Your task to perform on an android device: Go to Android settings Image 0: 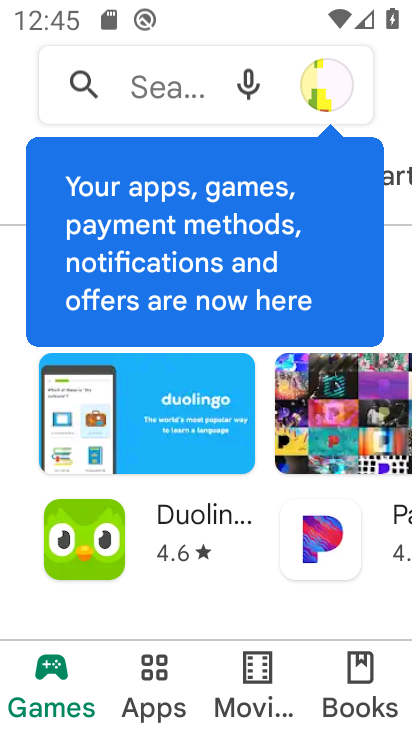
Step 0: press home button
Your task to perform on an android device: Go to Android settings Image 1: 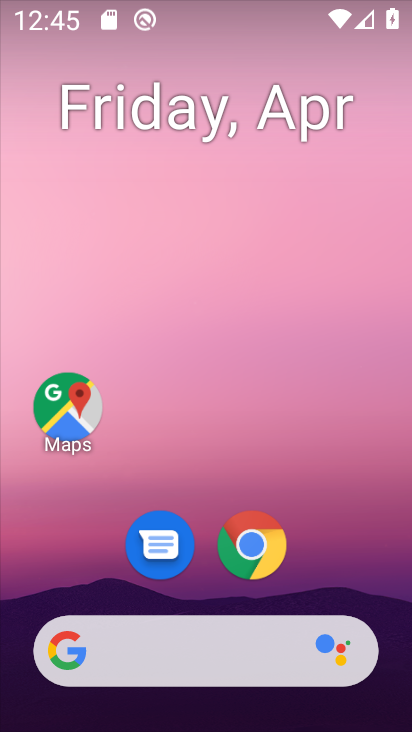
Step 1: drag from (319, 546) to (251, 25)
Your task to perform on an android device: Go to Android settings Image 2: 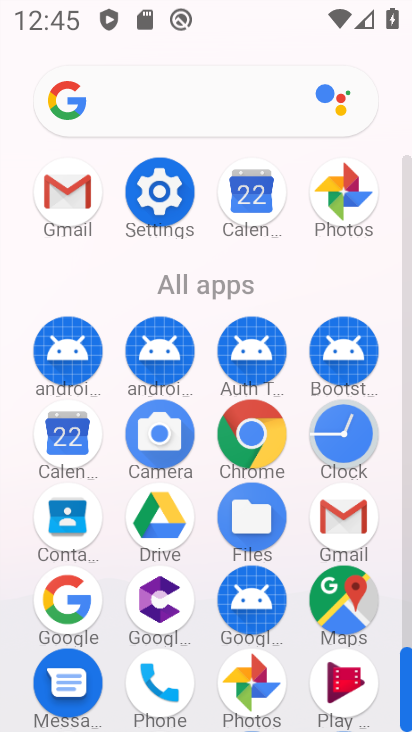
Step 2: click (164, 194)
Your task to perform on an android device: Go to Android settings Image 3: 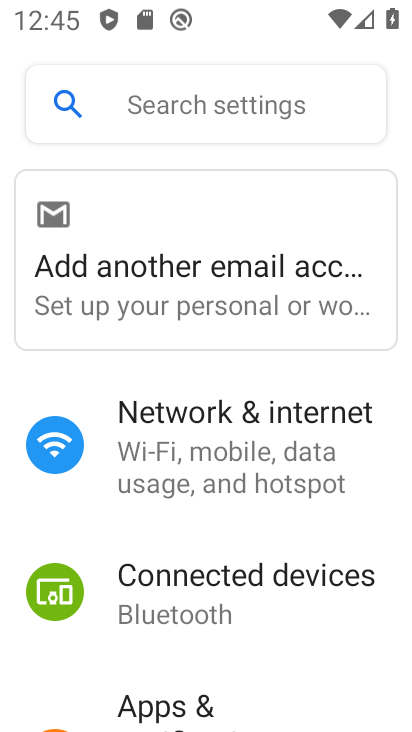
Step 3: drag from (290, 644) to (242, 231)
Your task to perform on an android device: Go to Android settings Image 4: 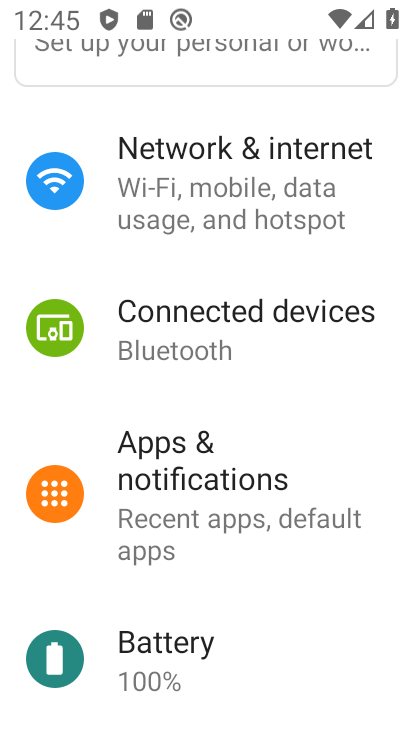
Step 4: drag from (237, 570) to (200, 155)
Your task to perform on an android device: Go to Android settings Image 5: 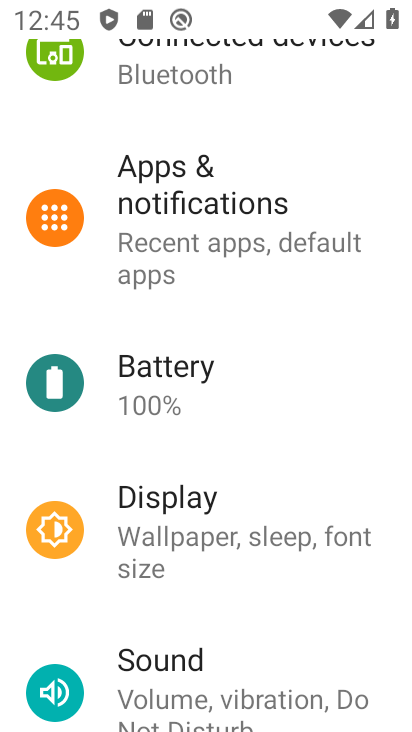
Step 5: drag from (227, 472) to (181, 8)
Your task to perform on an android device: Go to Android settings Image 6: 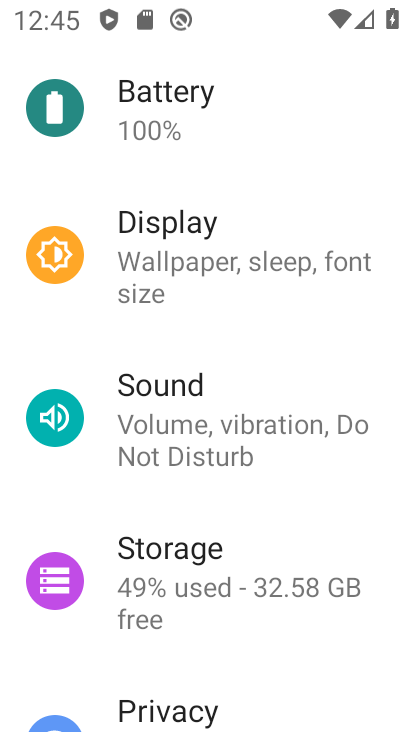
Step 6: drag from (252, 635) to (221, 156)
Your task to perform on an android device: Go to Android settings Image 7: 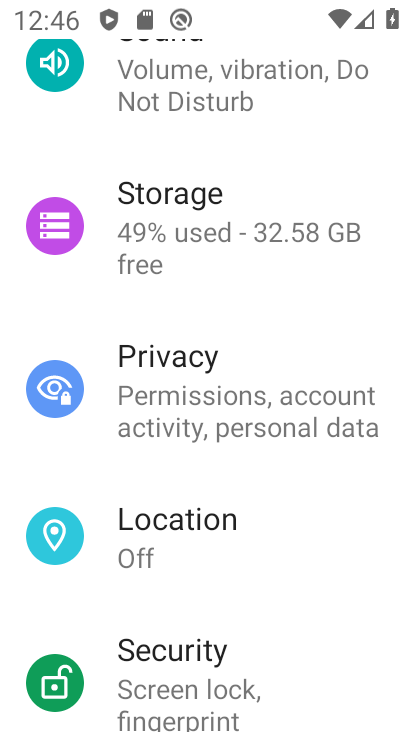
Step 7: drag from (264, 620) to (203, 105)
Your task to perform on an android device: Go to Android settings Image 8: 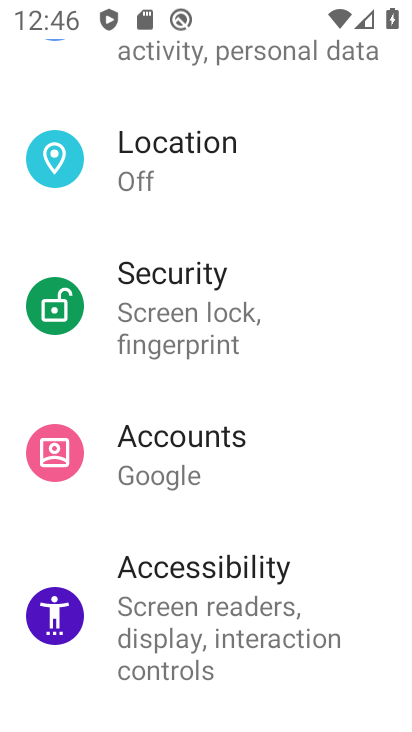
Step 8: drag from (261, 672) to (212, 147)
Your task to perform on an android device: Go to Android settings Image 9: 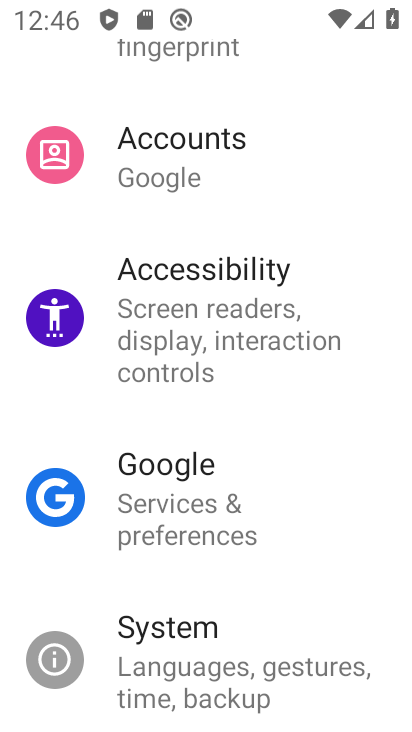
Step 9: drag from (234, 643) to (207, 154)
Your task to perform on an android device: Go to Android settings Image 10: 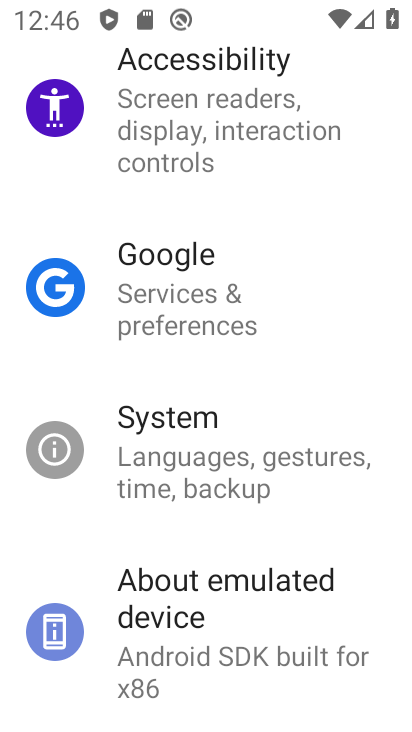
Step 10: click (211, 647)
Your task to perform on an android device: Go to Android settings Image 11: 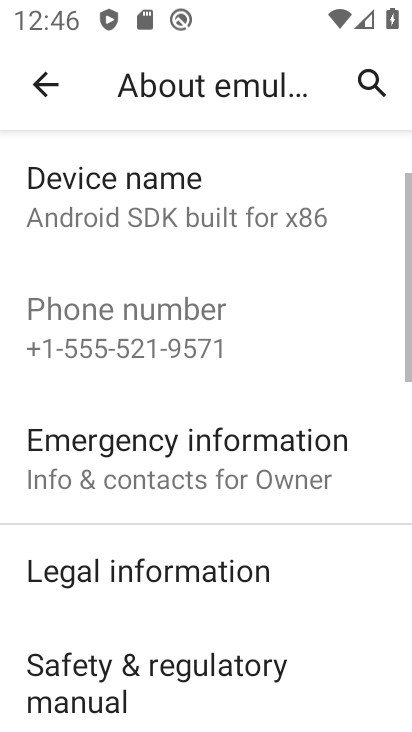
Step 11: drag from (222, 573) to (212, 292)
Your task to perform on an android device: Go to Android settings Image 12: 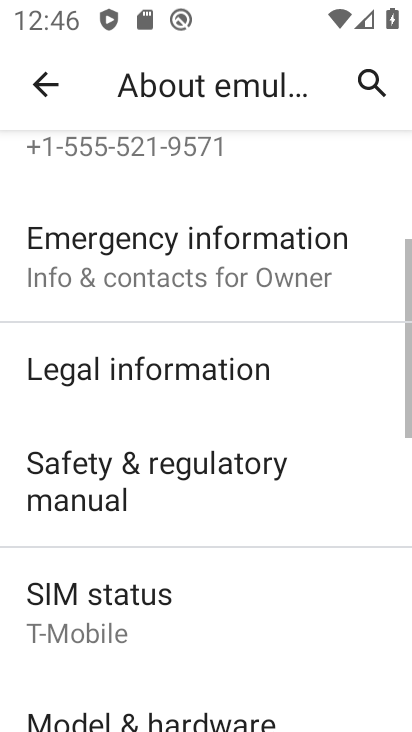
Step 12: drag from (195, 606) to (191, 261)
Your task to perform on an android device: Go to Android settings Image 13: 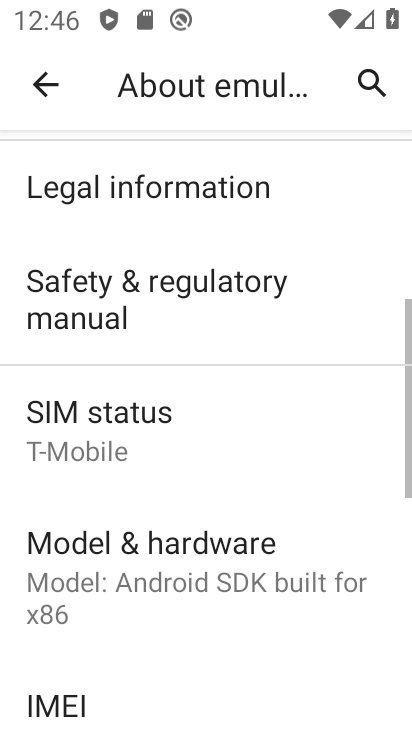
Step 13: drag from (185, 567) to (179, 211)
Your task to perform on an android device: Go to Android settings Image 14: 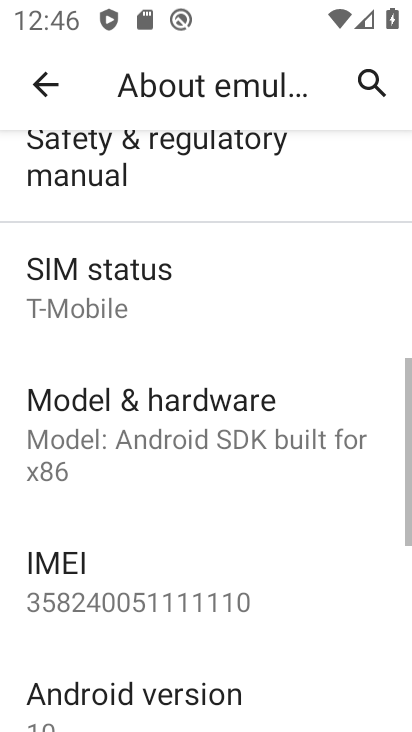
Step 14: click (194, 702)
Your task to perform on an android device: Go to Android settings Image 15: 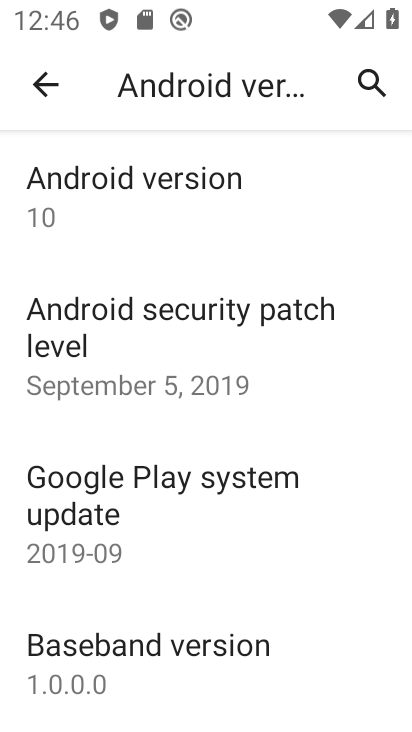
Step 15: click (130, 175)
Your task to perform on an android device: Go to Android settings Image 16: 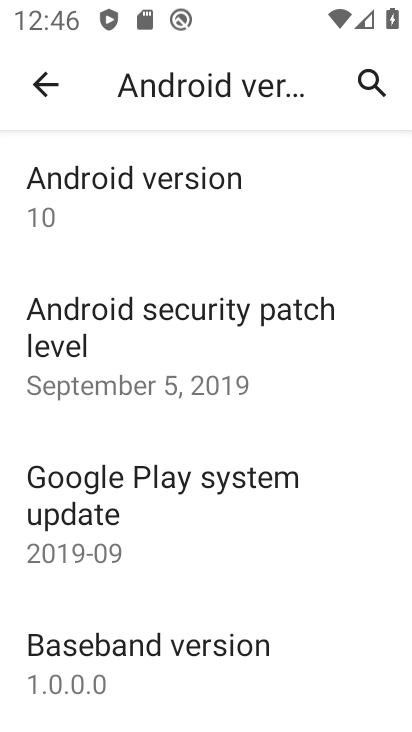
Step 16: task complete